Your task to perform on an android device: Open settings Image 0: 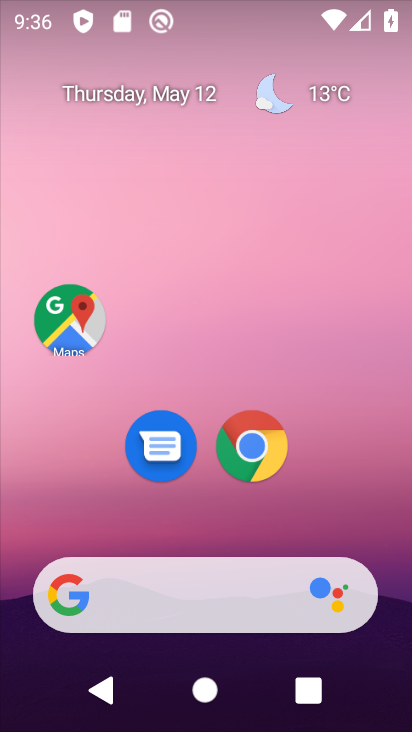
Step 0: drag from (248, 586) to (199, 34)
Your task to perform on an android device: Open settings Image 1: 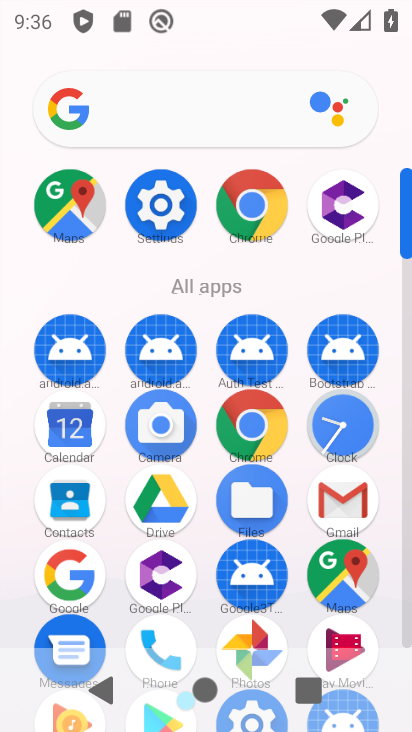
Step 1: click (141, 204)
Your task to perform on an android device: Open settings Image 2: 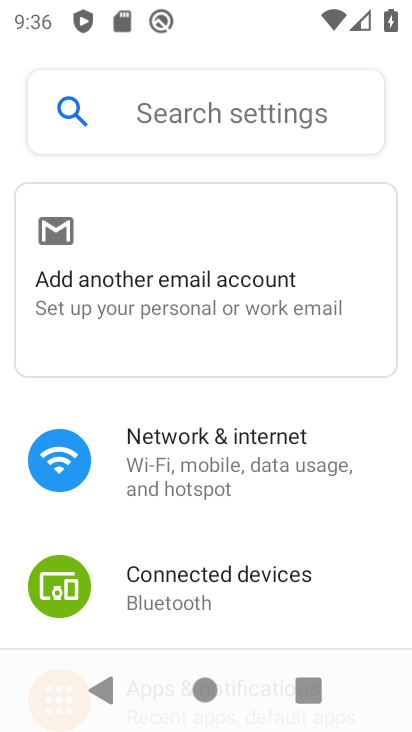
Step 2: task complete